Your task to perform on an android device: check data usage Image 0: 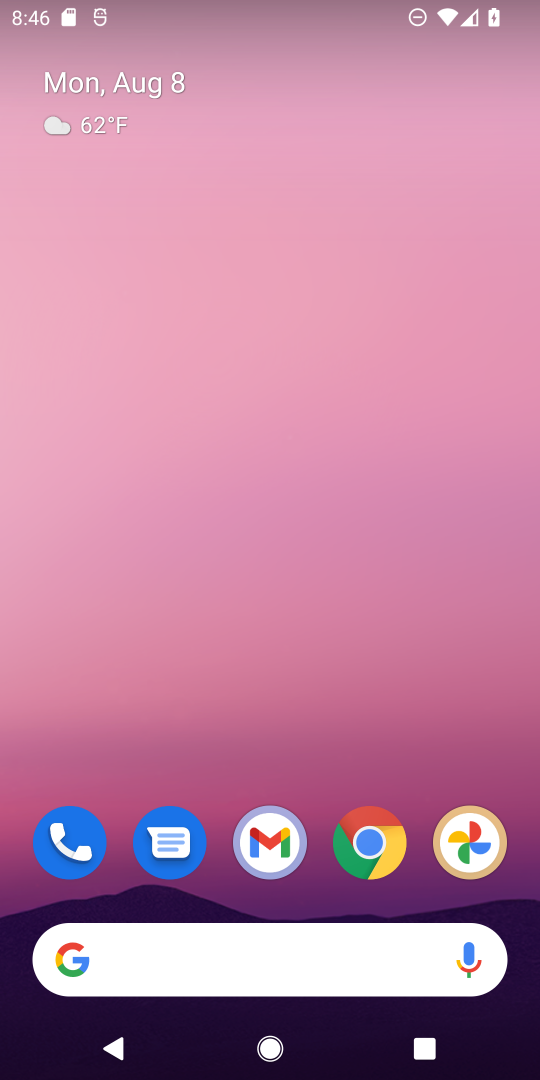
Step 0: drag from (341, 707) to (380, 1)
Your task to perform on an android device: check data usage Image 1: 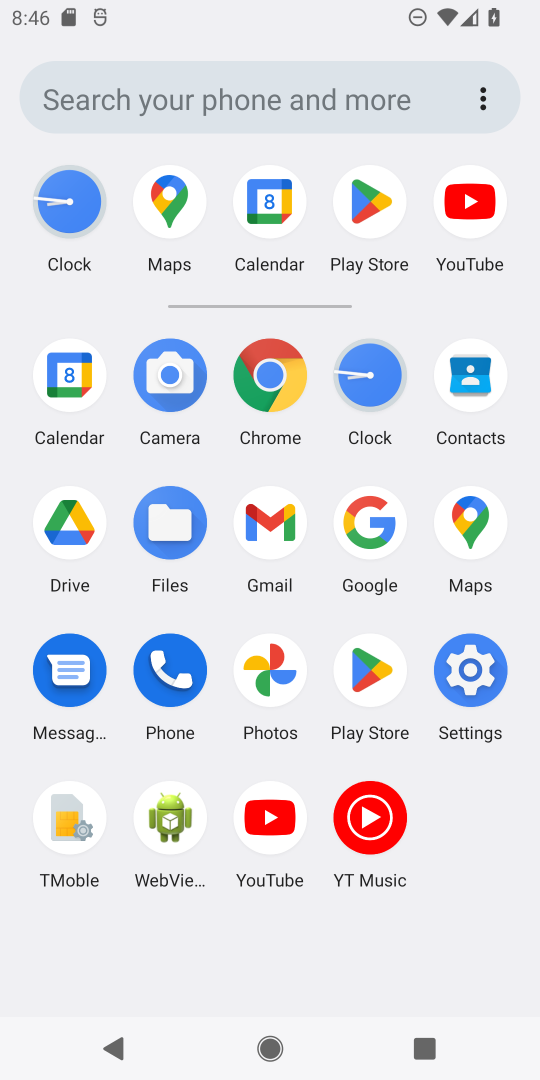
Step 1: click (463, 665)
Your task to perform on an android device: check data usage Image 2: 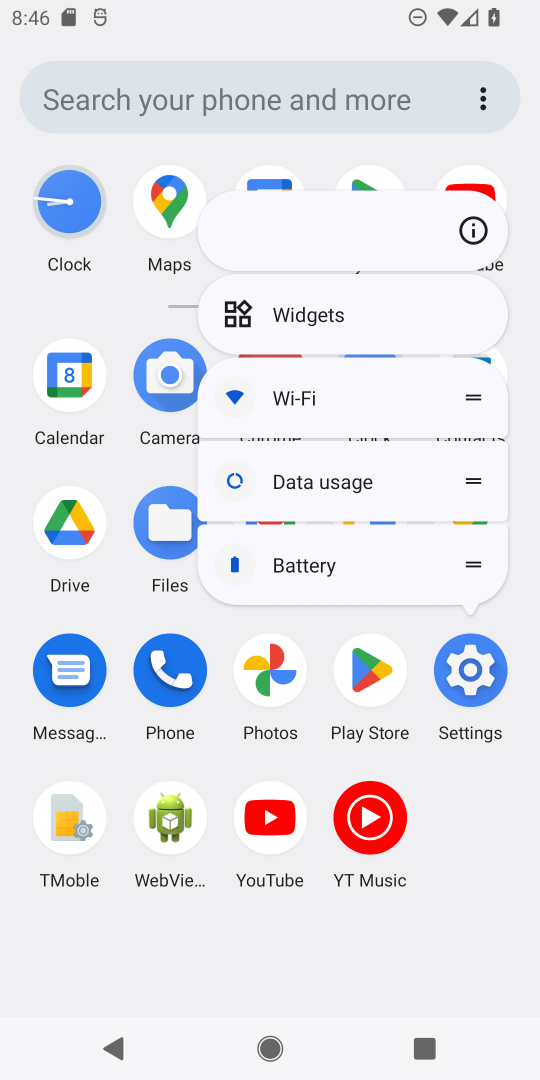
Step 2: click (463, 665)
Your task to perform on an android device: check data usage Image 3: 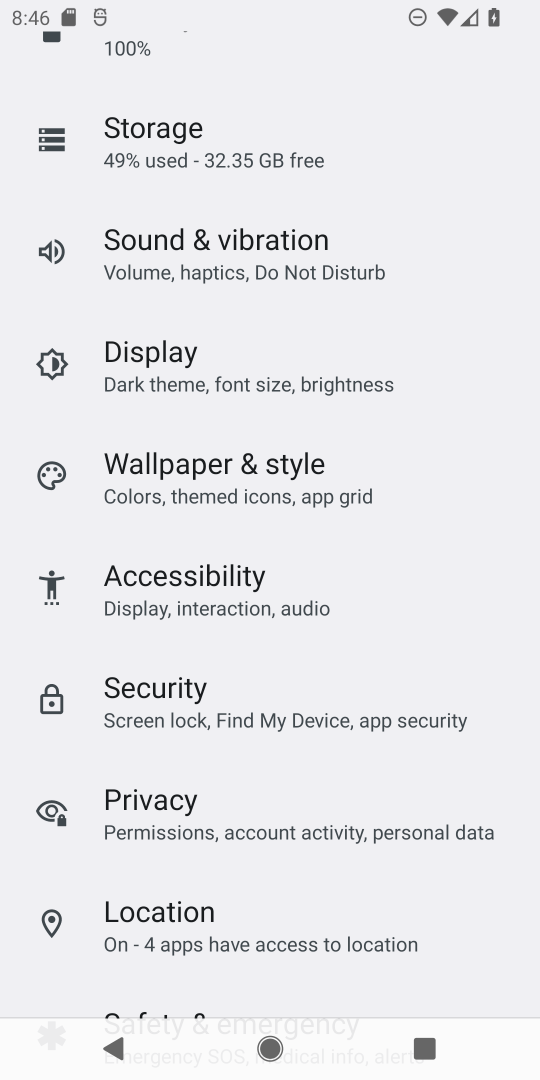
Step 3: drag from (302, 195) to (229, 840)
Your task to perform on an android device: check data usage Image 4: 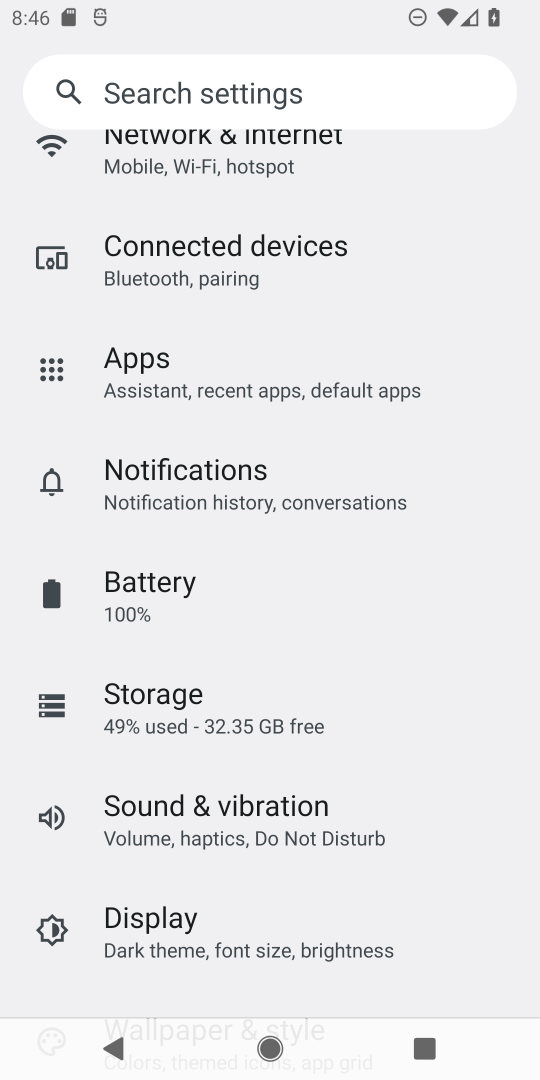
Step 4: drag from (293, 424) to (258, 865)
Your task to perform on an android device: check data usage Image 5: 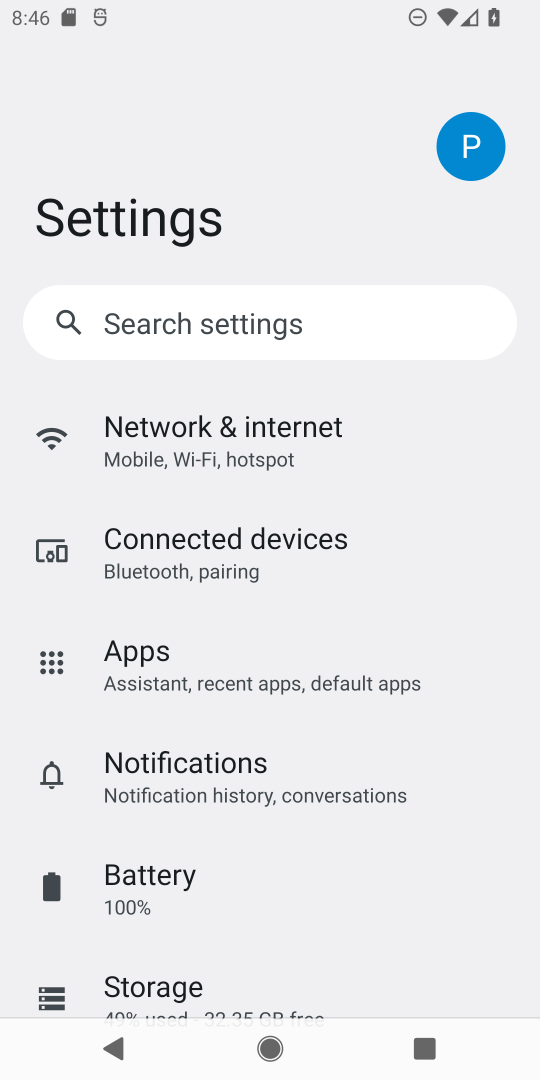
Step 5: click (282, 433)
Your task to perform on an android device: check data usage Image 6: 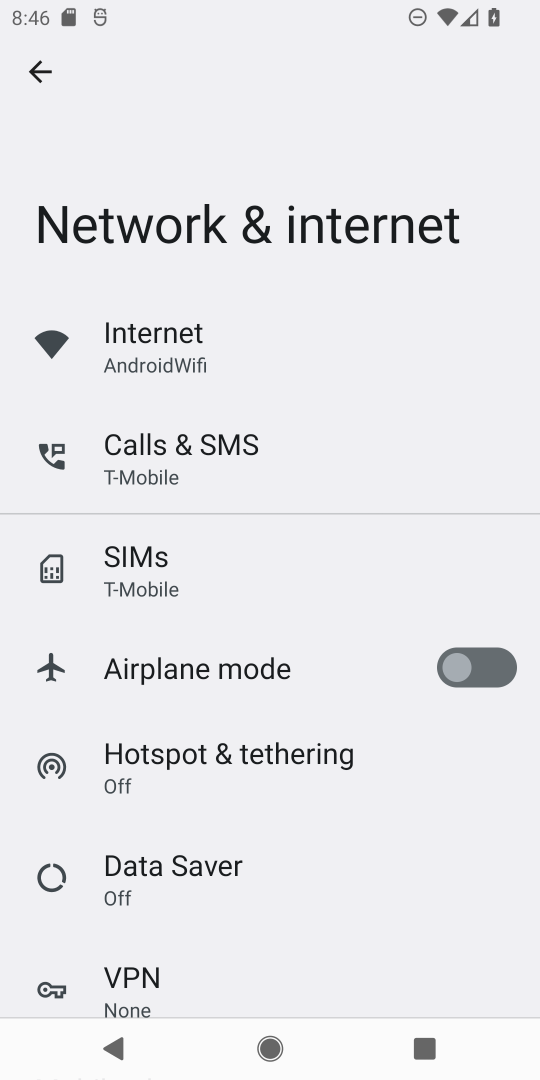
Step 6: click (187, 557)
Your task to perform on an android device: check data usage Image 7: 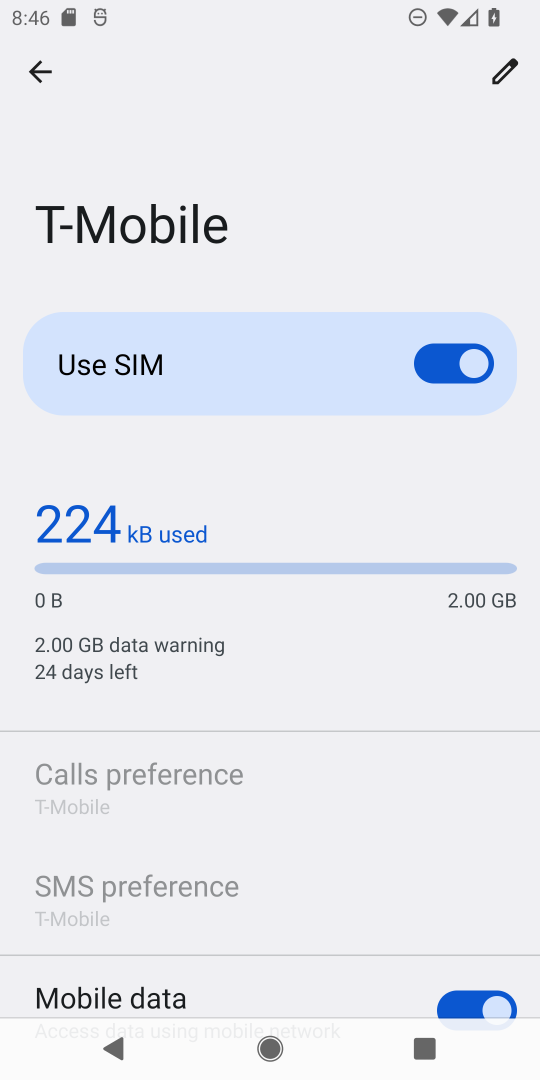
Step 7: task complete